Your task to perform on an android device: find which apps use the phone's location Image 0: 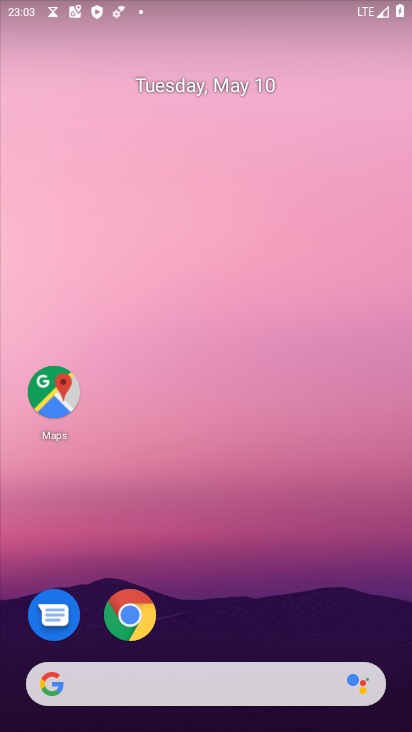
Step 0: drag from (251, 603) to (251, 109)
Your task to perform on an android device: find which apps use the phone's location Image 1: 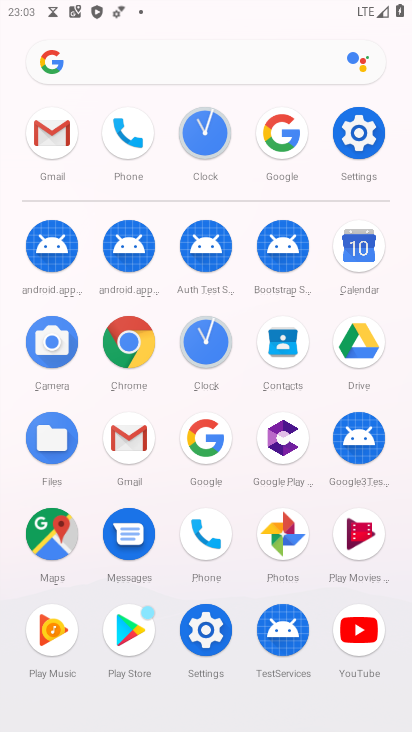
Step 1: click (357, 131)
Your task to perform on an android device: find which apps use the phone's location Image 2: 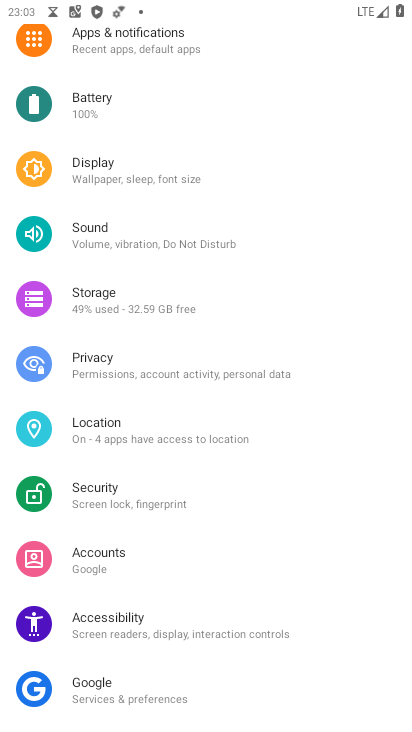
Step 2: click (140, 429)
Your task to perform on an android device: find which apps use the phone's location Image 3: 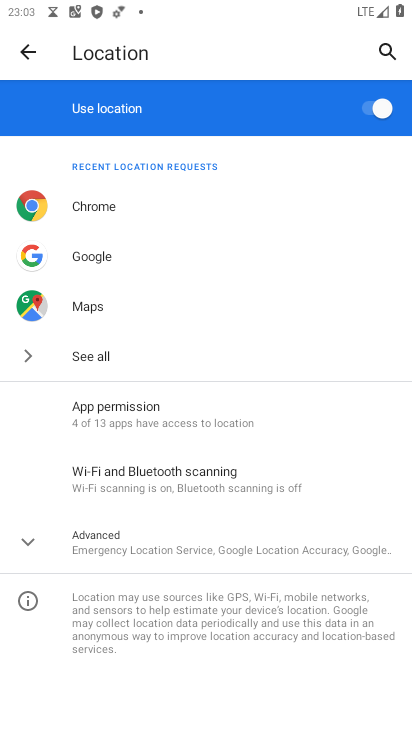
Step 3: click (131, 404)
Your task to perform on an android device: find which apps use the phone's location Image 4: 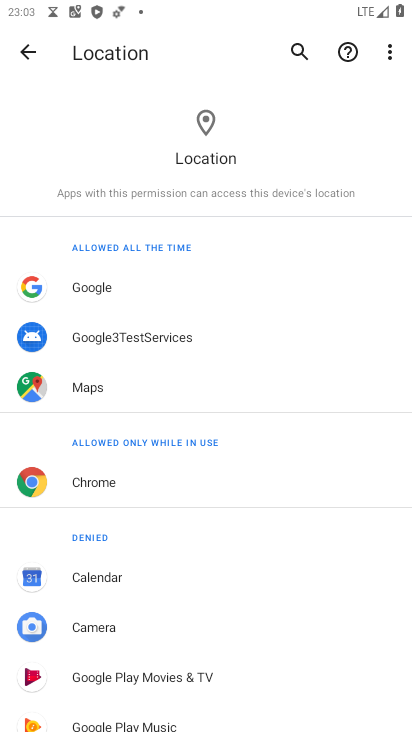
Step 4: click (95, 389)
Your task to perform on an android device: find which apps use the phone's location Image 5: 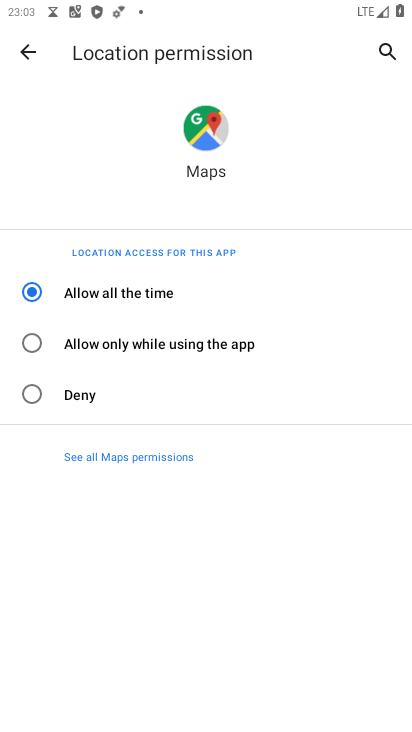
Step 5: task complete